Your task to perform on an android device: find photos in the google photos app Image 0: 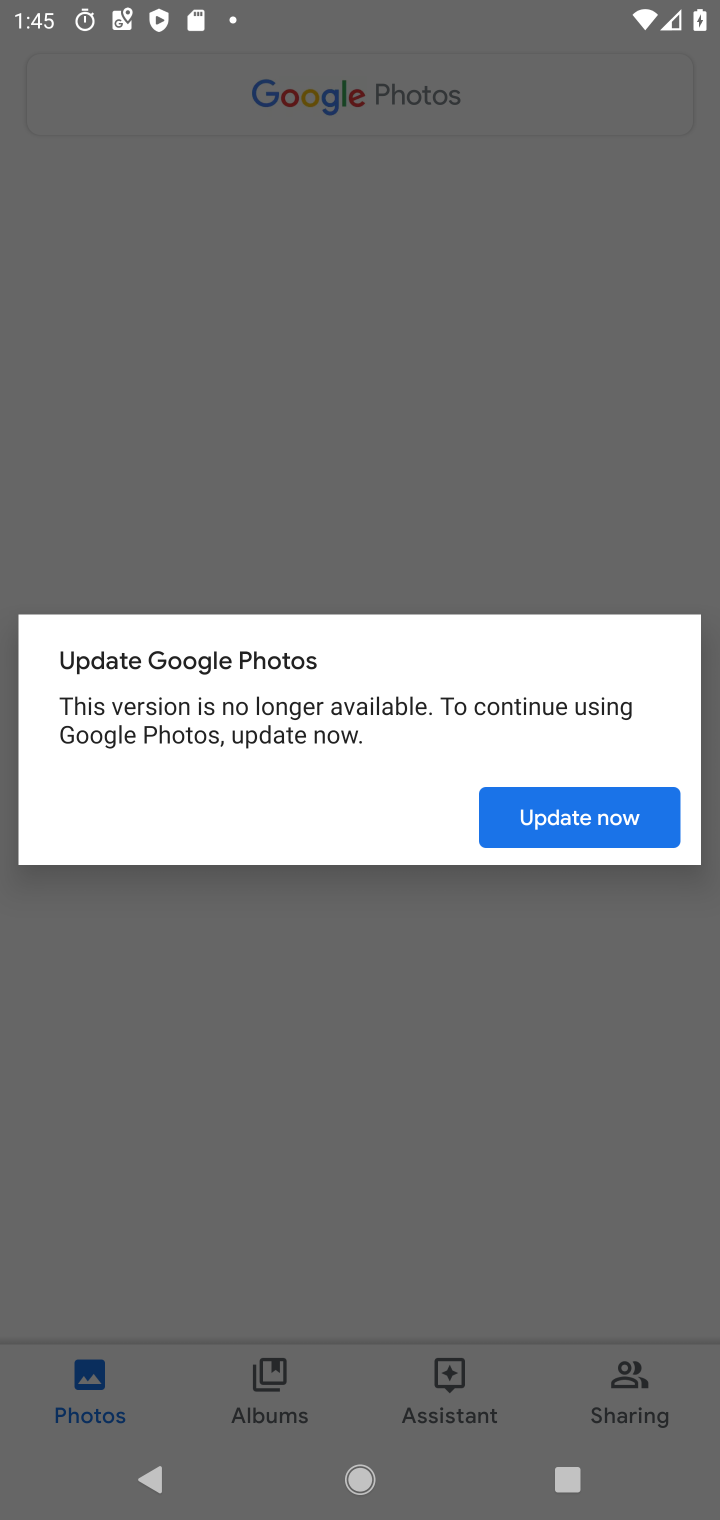
Step 0: press home button
Your task to perform on an android device: find photos in the google photos app Image 1: 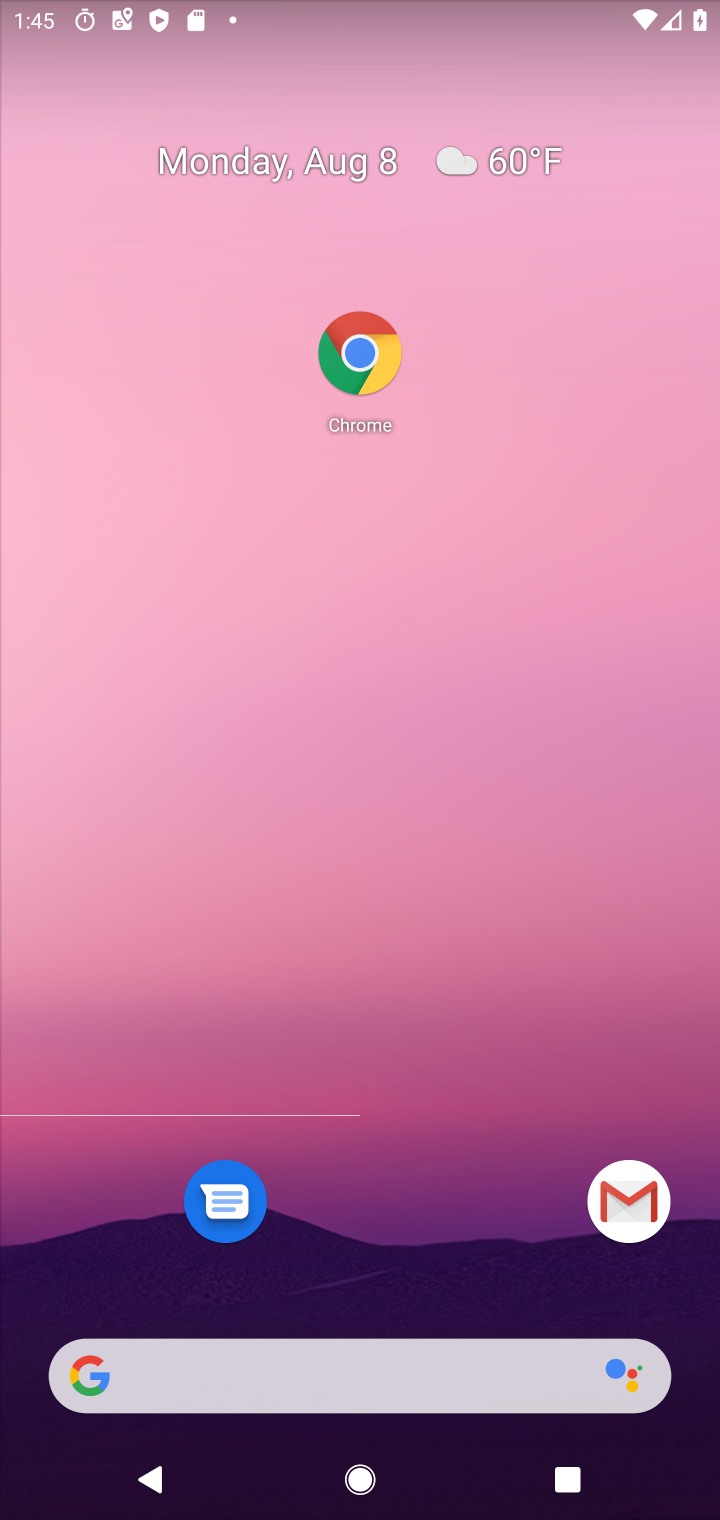
Step 1: drag from (340, 1449) to (284, 456)
Your task to perform on an android device: find photos in the google photos app Image 2: 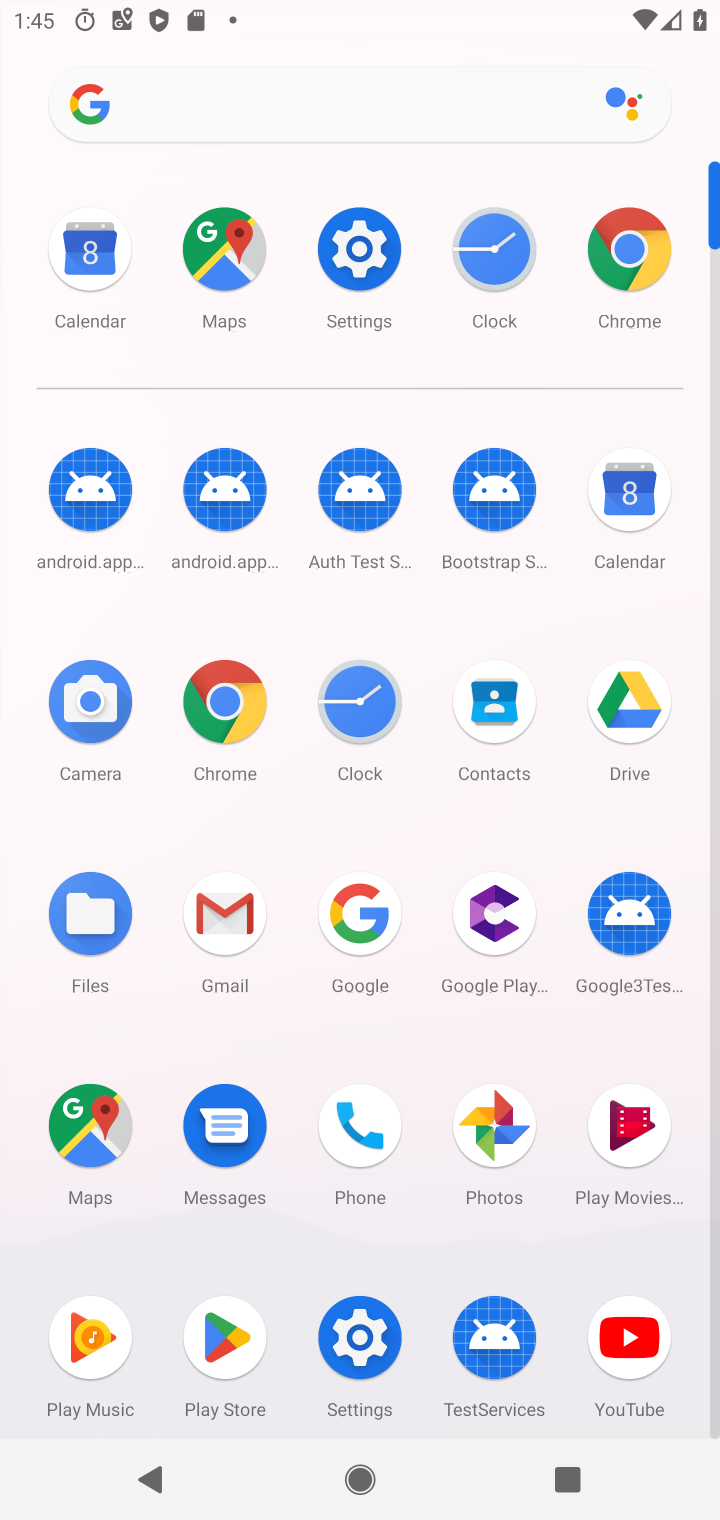
Step 2: click (478, 1130)
Your task to perform on an android device: find photos in the google photos app Image 3: 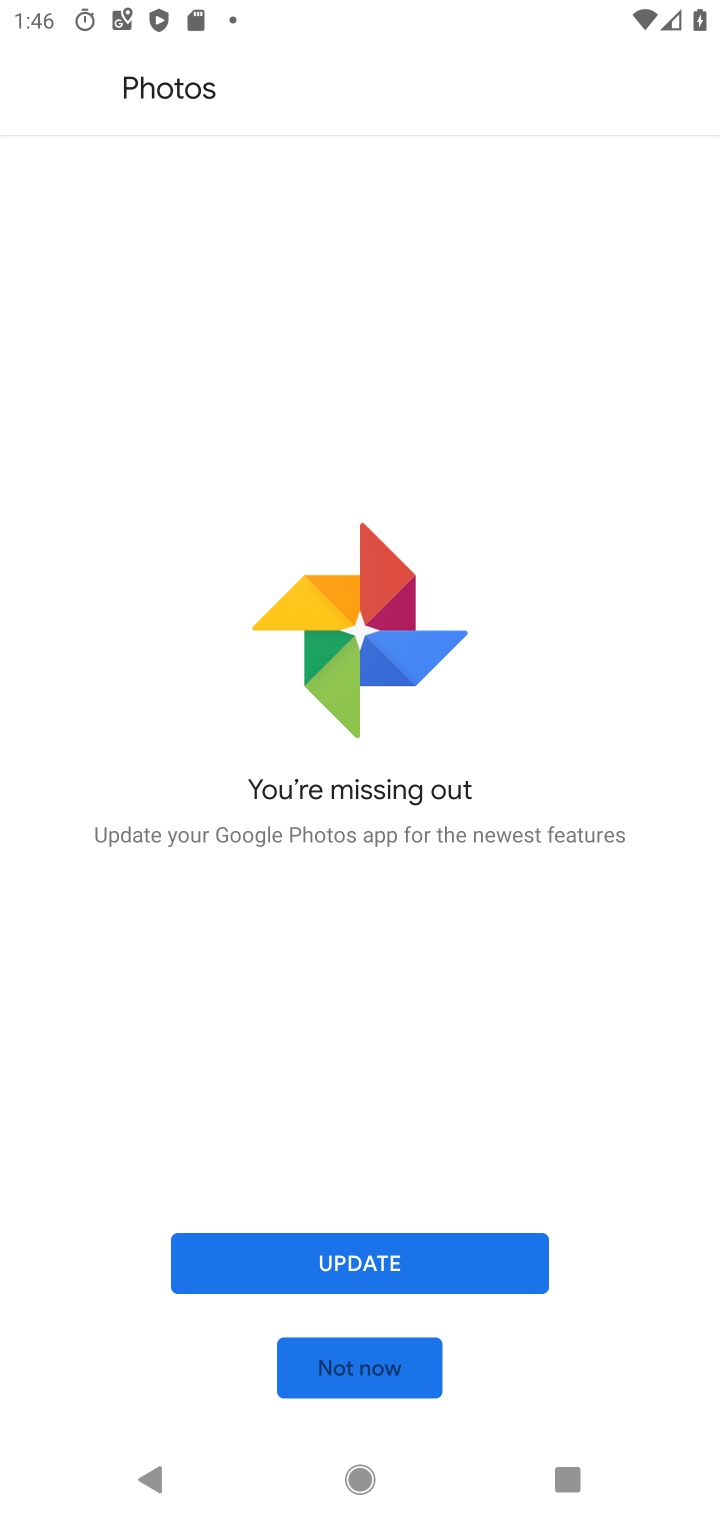
Step 3: click (317, 1280)
Your task to perform on an android device: find photos in the google photos app Image 4: 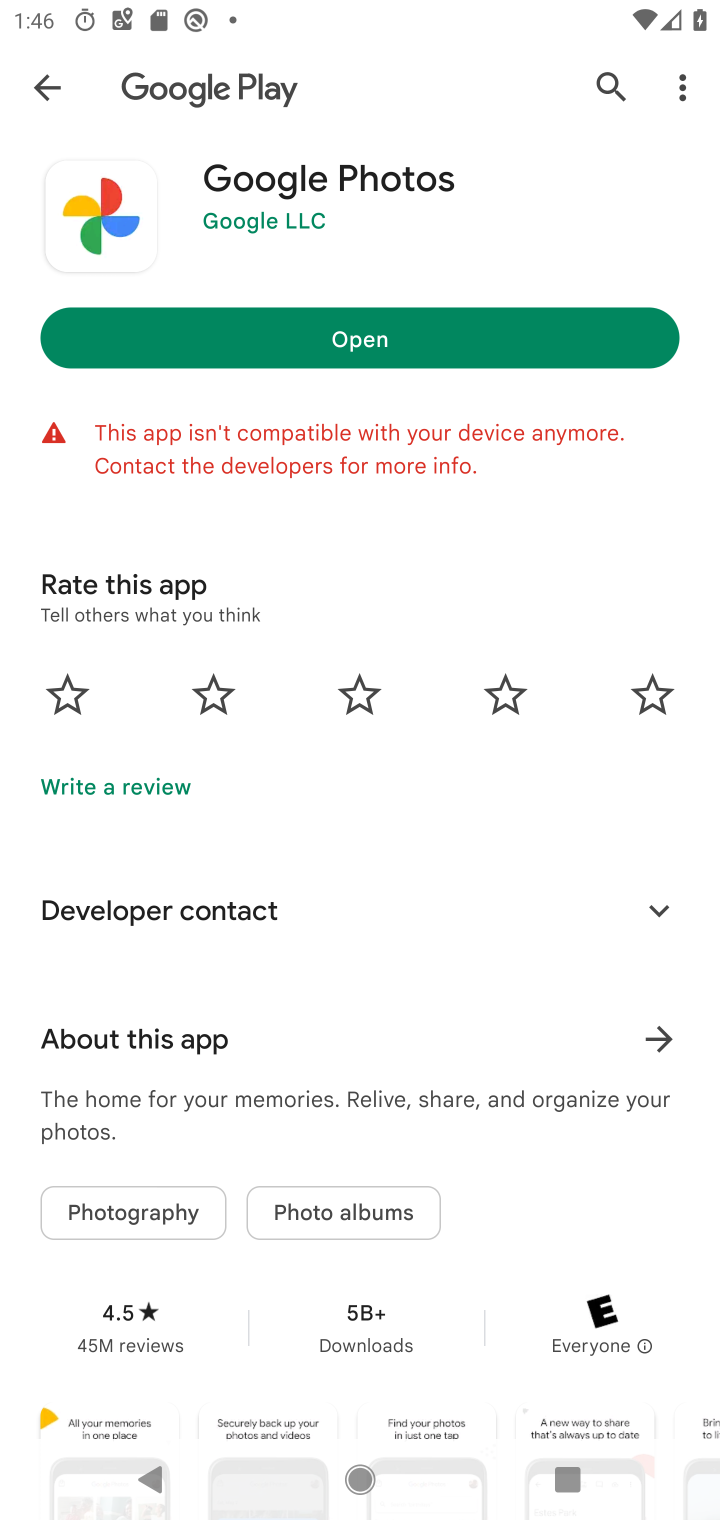
Step 4: click (369, 328)
Your task to perform on an android device: find photos in the google photos app Image 5: 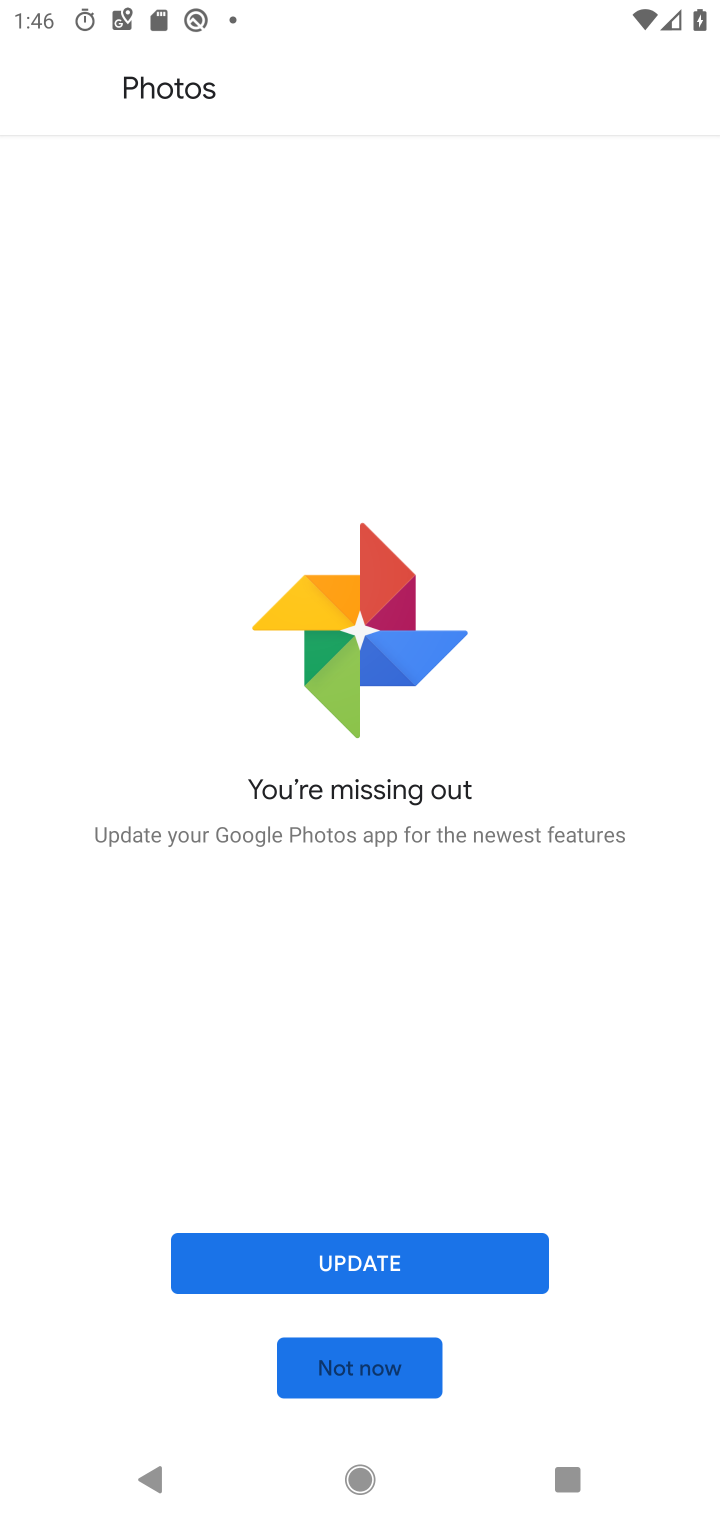
Step 5: click (339, 1238)
Your task to perform on an android device: find photos in the google photos app Image 6: 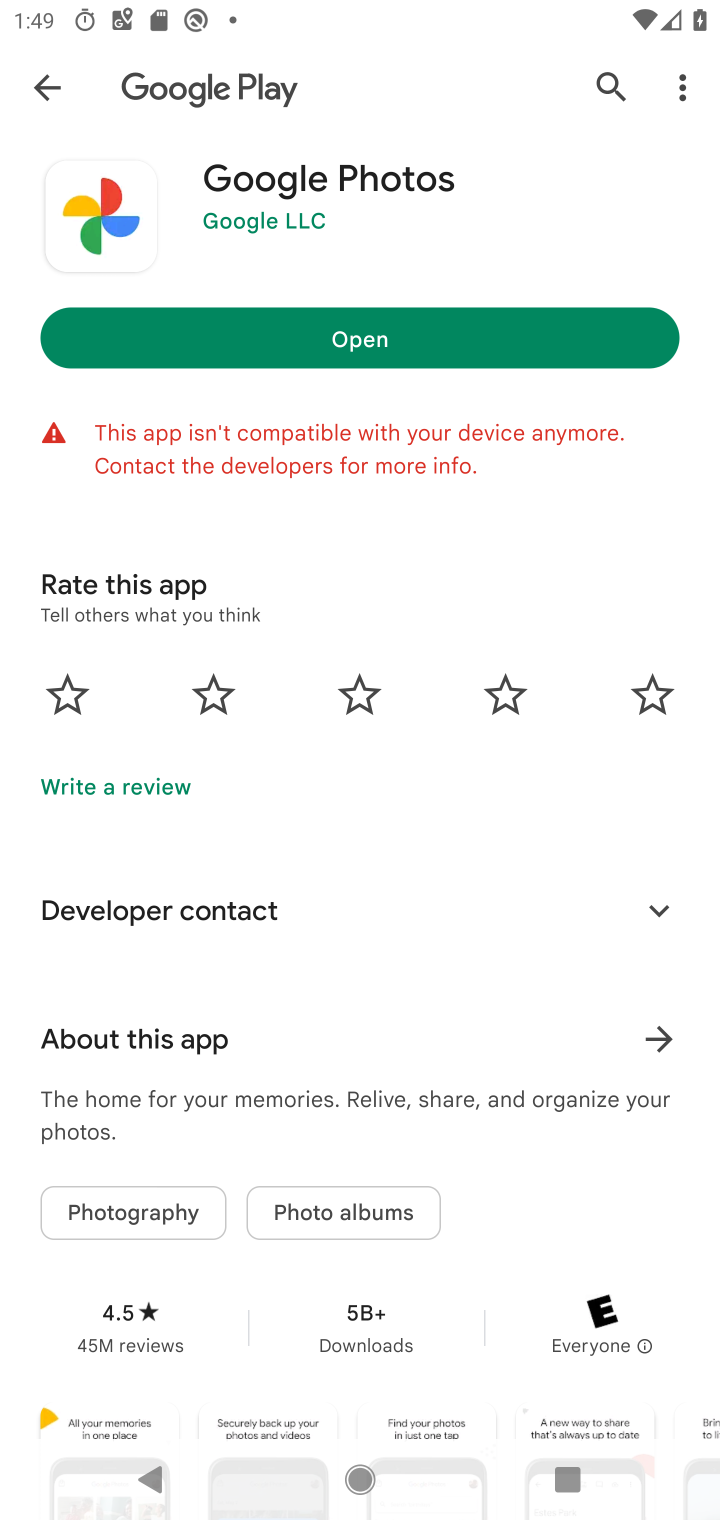
Step 6: task complete